Your task to perform on an android device: read, delete, or share a saved page in the chrome app Image 0: 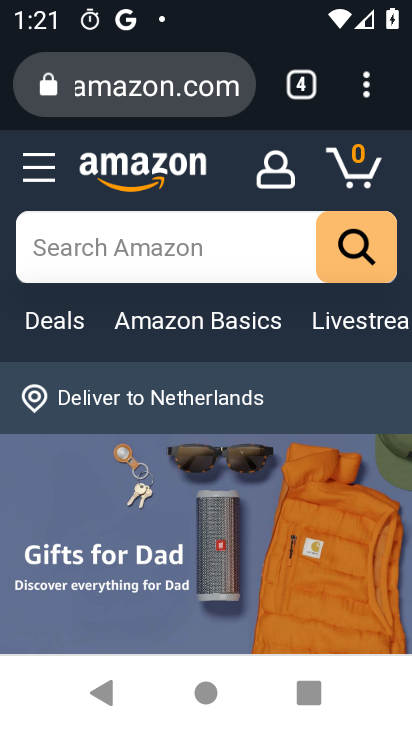
Step 0: click (369, 88)
Your task to perform on an android device: read, delete, or share a saved page in the chrome app Image 1: 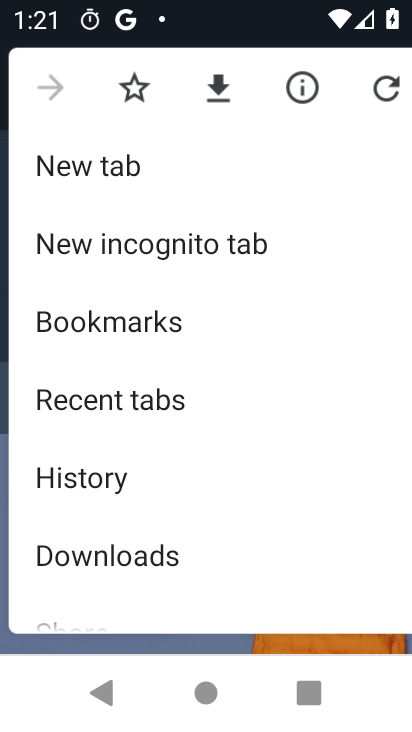
Step 1: drag from (253, 540) to (242, 161)
Your task to perform on an android device: read, delete, or share a saved page in the chrome app Image 2: 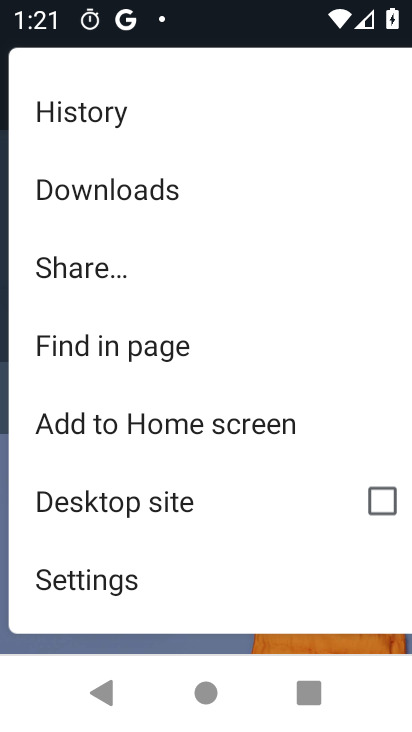
Step 2: drag from (175, 448) to (151, 124)
Your task to perform on an android device: read, delete, or share a saved page in the chrome app Image 3: 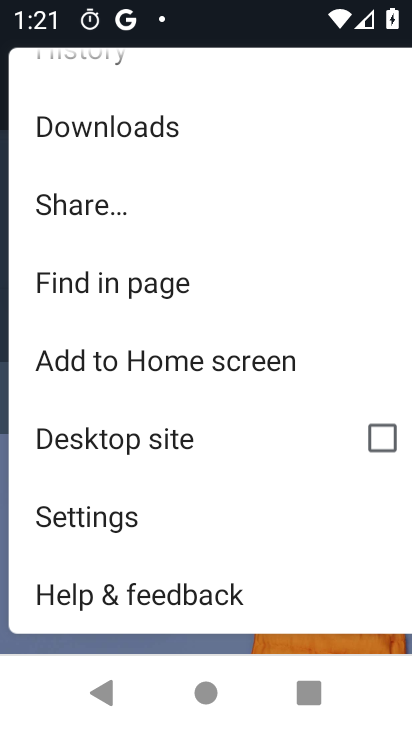
Step 3: click (86, 507)
Your task to perform on an android device: read, delete, or share a saved page in the chrome app Image 4: 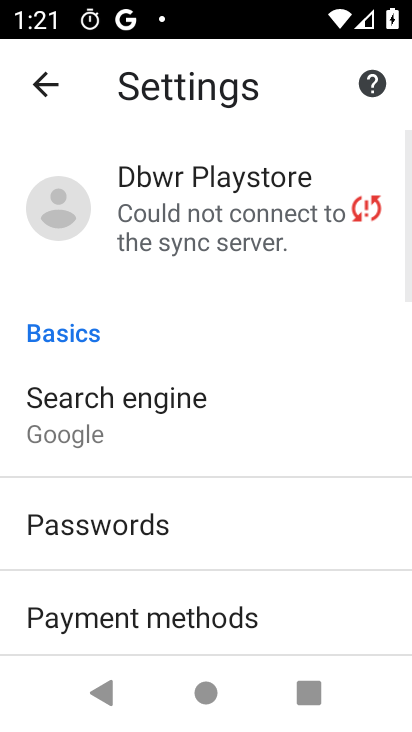
Step 4: drag from (142, 518) to (180, 209)
Your task to perform on an android device: read, delete, or share a saved page in the chrome app Image 5: 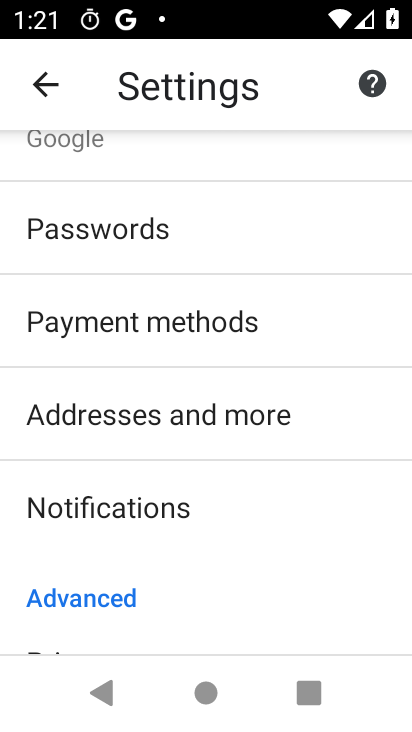
Step 5: drag from (209, 506) to (209, 137)
Your task to perform on an android device: read, delete, or share a saved page in the chrome app Image 6: 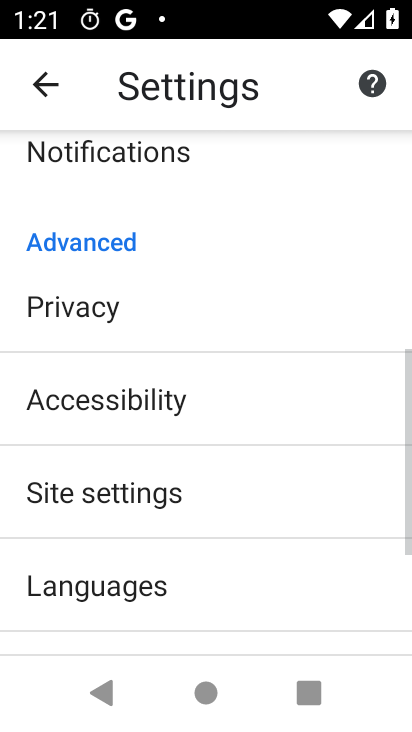
Step 6: drag from (212, 458) to (202, 151)
Your task to perform on an android device: read, delete, or share a saved page in the chrome app Image 7: 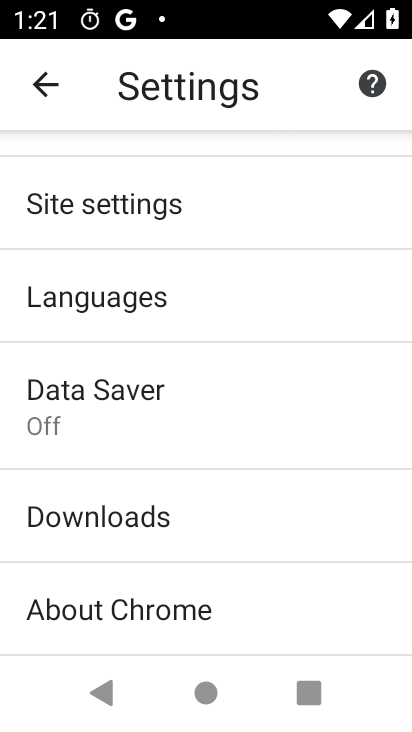
Step 7: drag from (223, 424) to (219, 144)
Your task to perform on an android device: read, delete, or share a saved page in the chrome app Image 8: 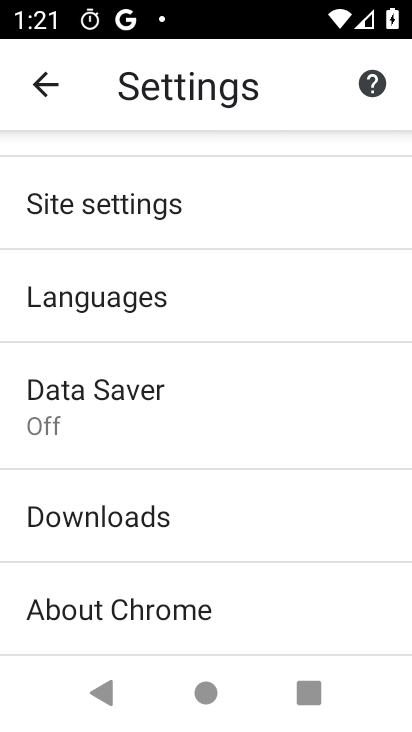
Step 8: click (168, 600)
Your task to perform on an android device: read, delete, or share a saved page in the chrome app Image 9: 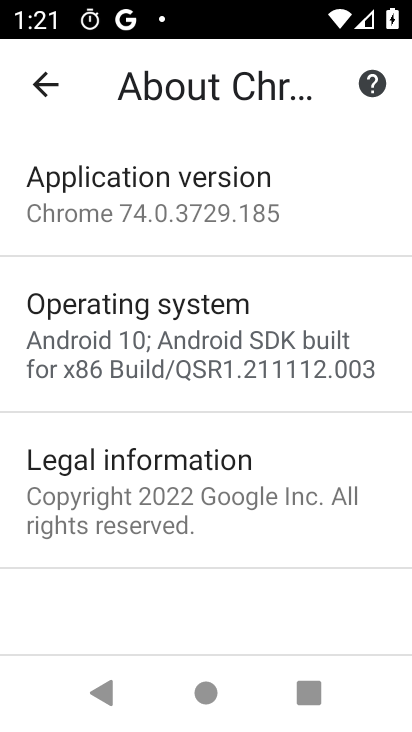
Step 9: task complete